Your task to perform on an android device: Go to battery settings Image 0: 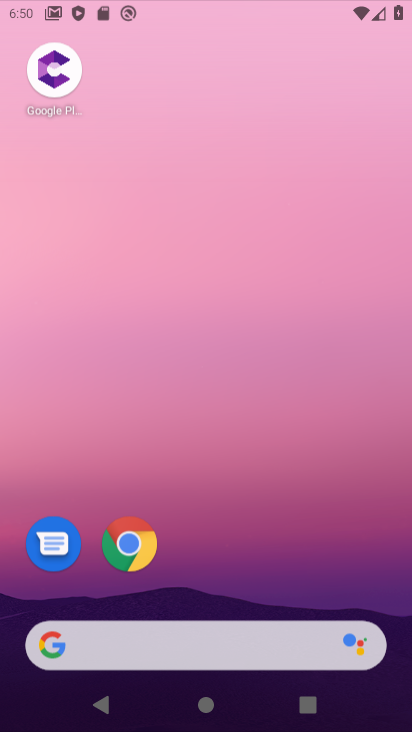
Step 0: click (117, 6)
Your task to perform on an android device: Go to battery settings Image 1: 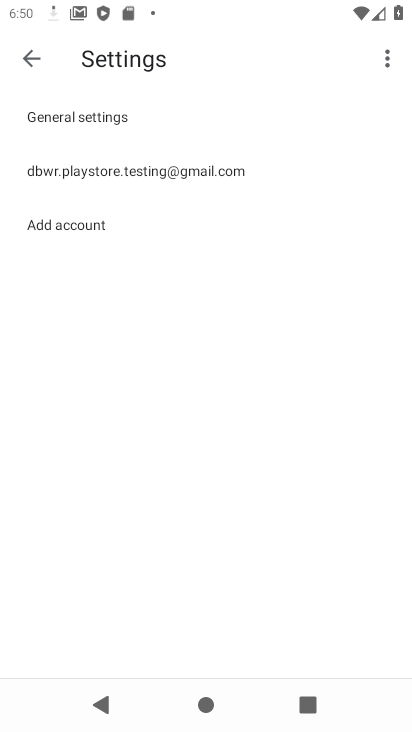
Step 1: press home button
Your task to perform on an android device: Go to battery settings Image 2: 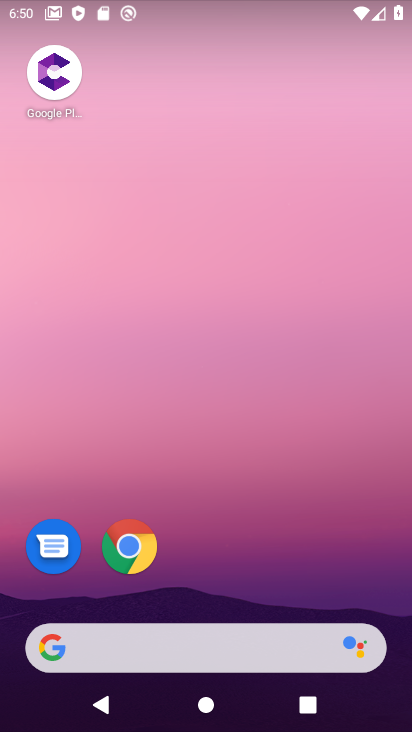
Step 2: drag from (327, 497) to (338, 49)
Your task to perform on an android device: Go to battery settings Image 3: 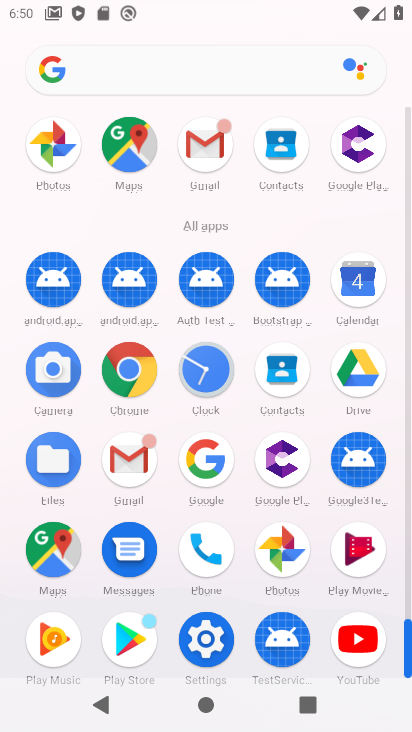
Step 3: drag from (249, 410) to (267, 102)
Your task to perform on an android device: Go to battery settings Image 4: 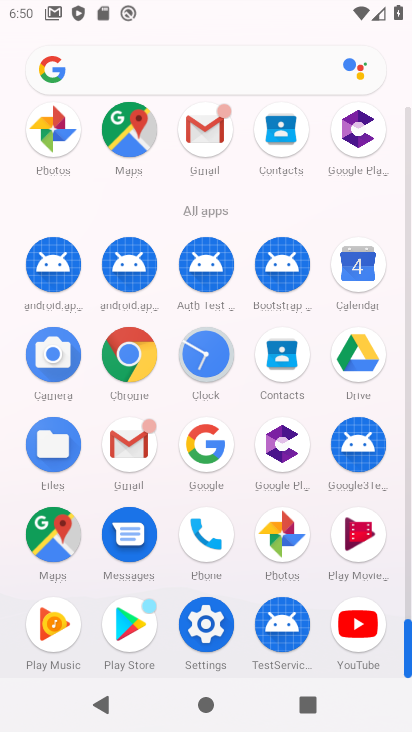
Step 4: click (206, 632)
Your task to perform on an android device: Go to battery settings Image 5: 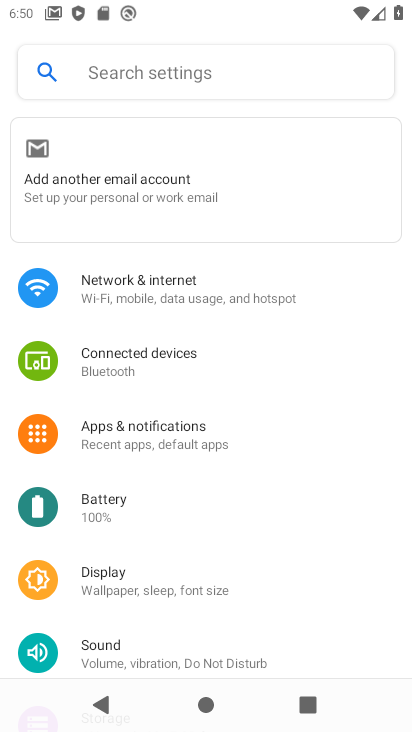
Step 5: click (139, 504)
Your task to perform on an android device: Go to battery settings Image 6: 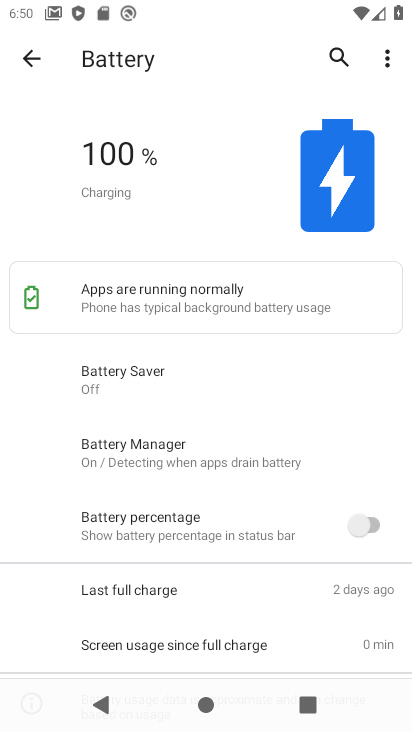
Step 6: task complete